Your task to perform on an android device: Show me productivity apps on the Play Store Image 0: 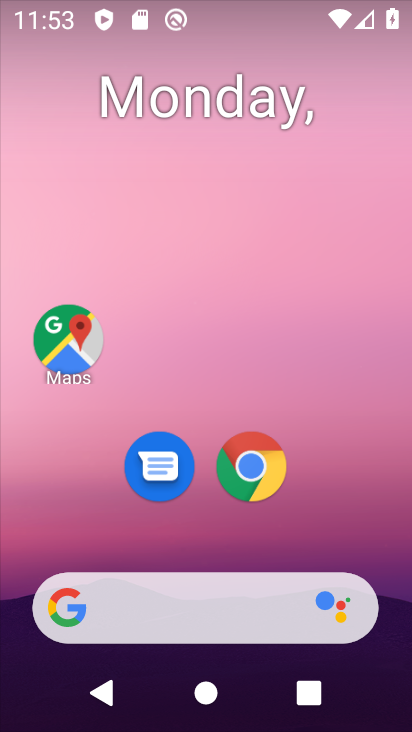
Step 0: drag from (156, 548) to (274, 17)
Your task to perform on an android device: Show me productivity apps on the Play Store Image 1: 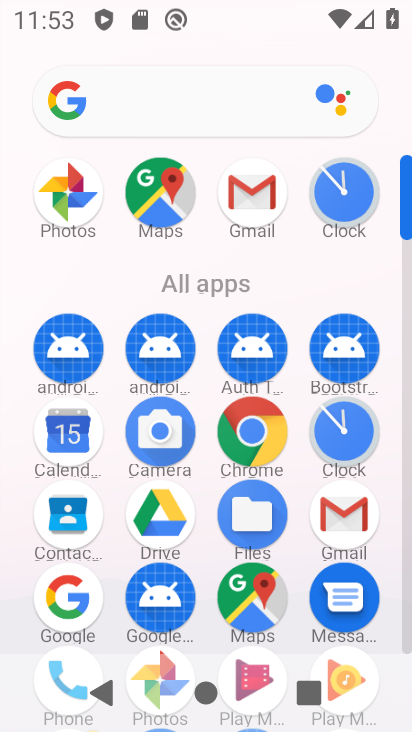
Step 1: drag from (218, 617) to (258, 177)
Your task to perform on an android device: Show me productivity apps on the Play Store Image 2: 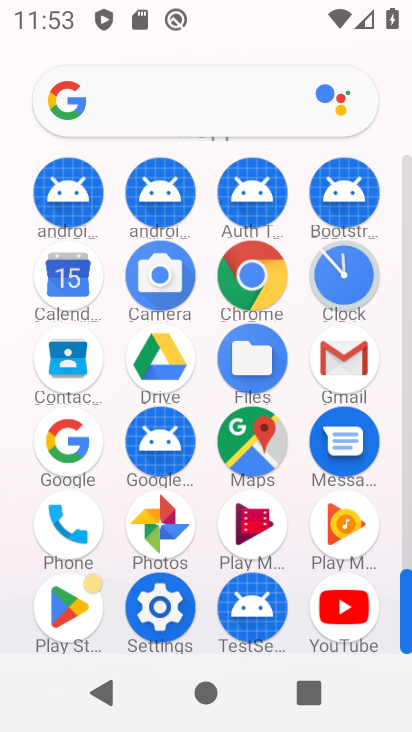
Step 2: click (85, 605)
Your task to perform on an android device: Show me productivity apps on the Play Store Image 3: 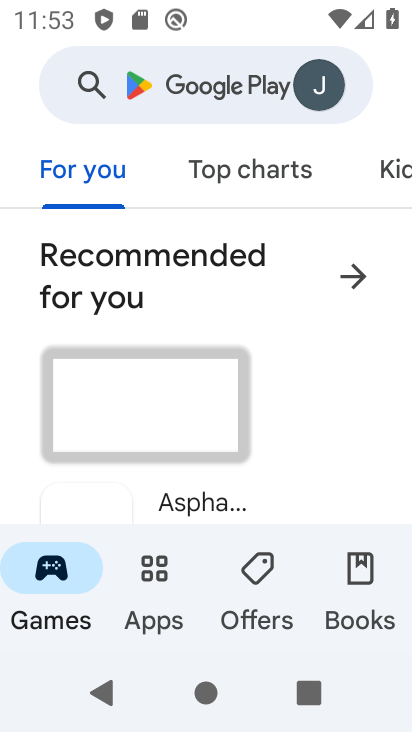
Step 3: click (159, 573)
Your task to perform on an android device: Show me productivity apps on the Play Store Image 4: 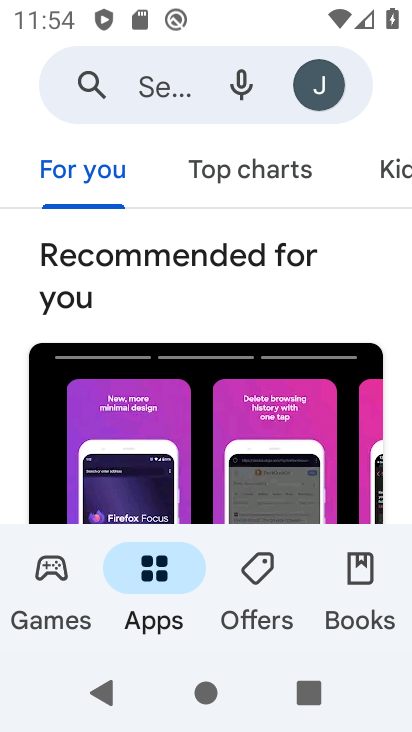
Step 4: task complete